Your task to perform on an android device: open a bookmark in the chrome app Image 0: 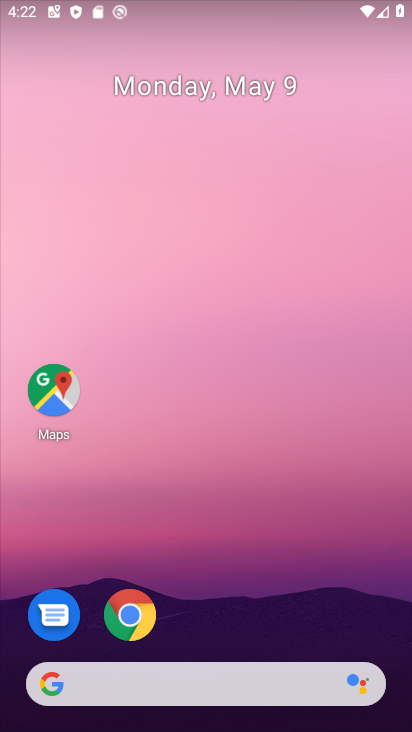
Step 0: click (142, 626)
Your task to perform on an android device: open a bookmark in the chrome app Image 1: 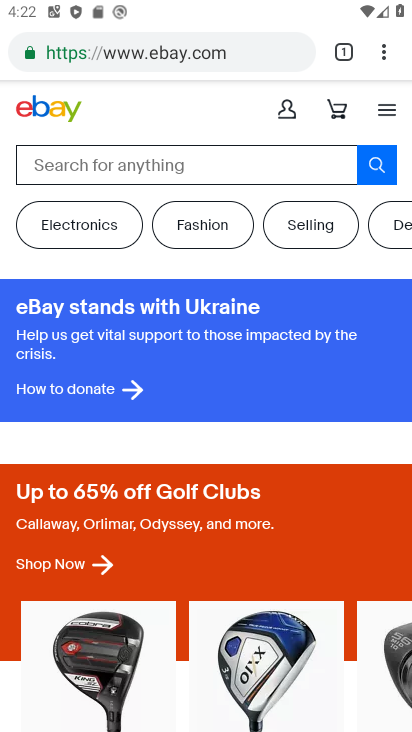
Step 1: drag from (381, 62) to (339, 190)
Your task to perform on an android device: open a bookmark in the chrome app Image 2: 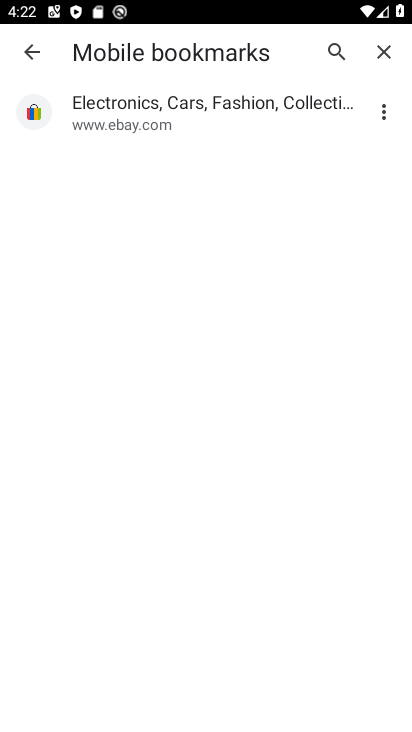
Step 2: click (229, 112)
Your task to perform on an android device: open a bookmark in the chrome app Image 3: 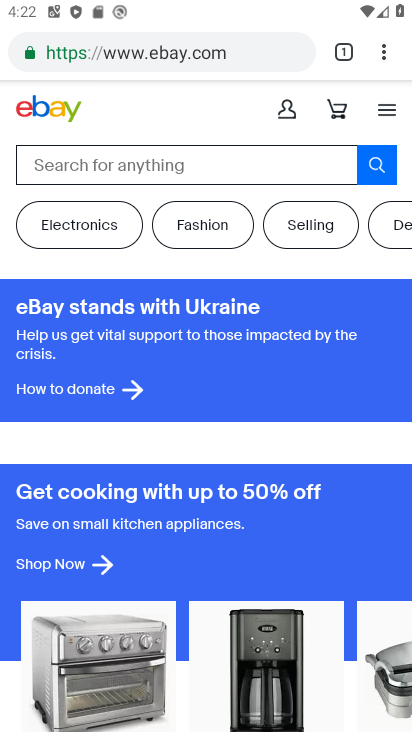
Step 3: task complete